Your task to perform on an android device: install app "VLC for Android" Image 0: 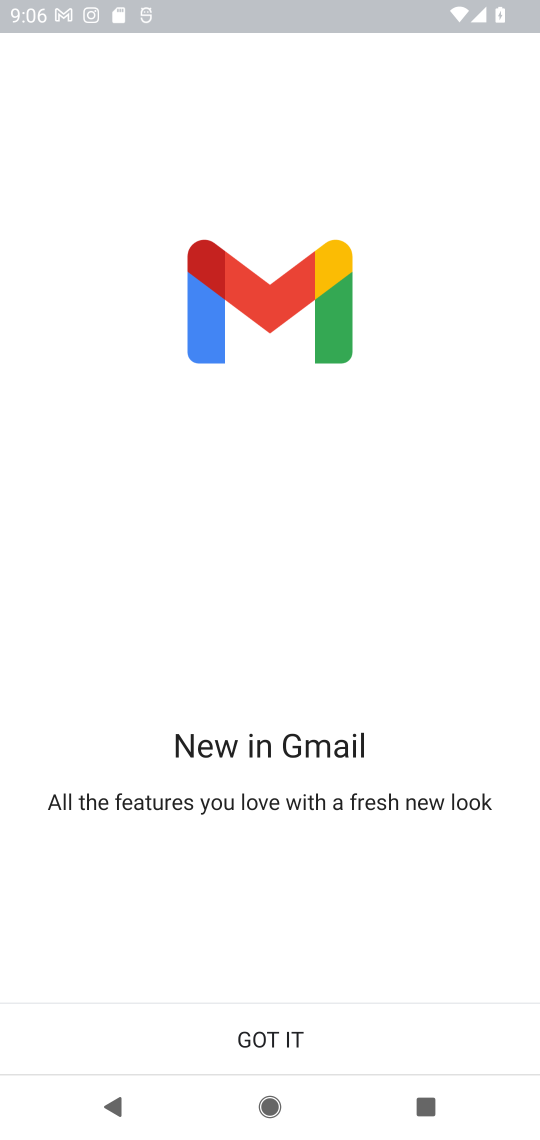
Step 0: press home button
Your task to perform on an android device: install app "VLC for Android" Image 1: 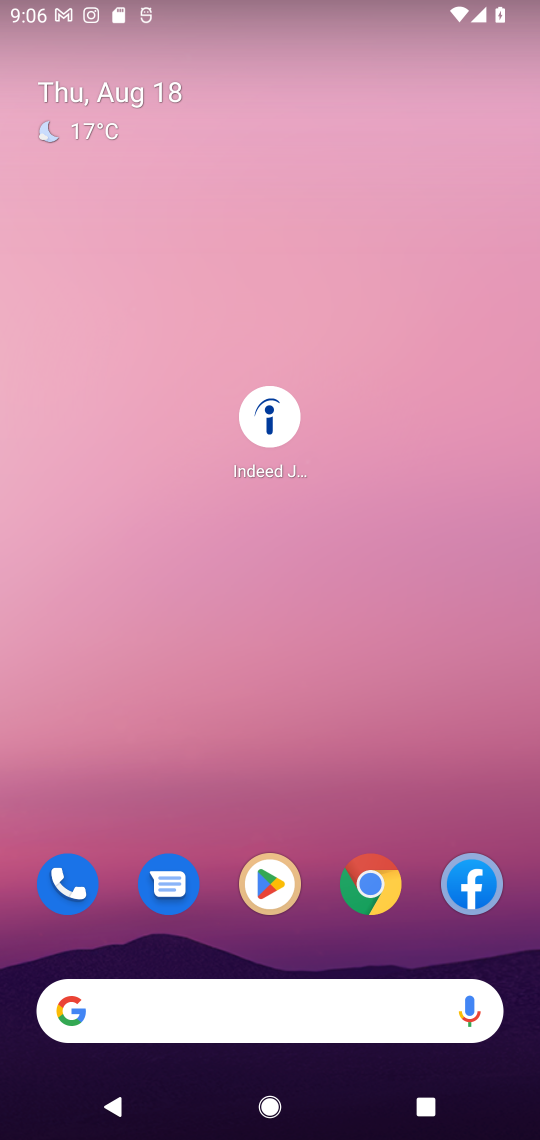
Step 1: drag from (206, 997) to (354, 110)
Your task to perform on an android device: install app "VLC for Android" Image 2: 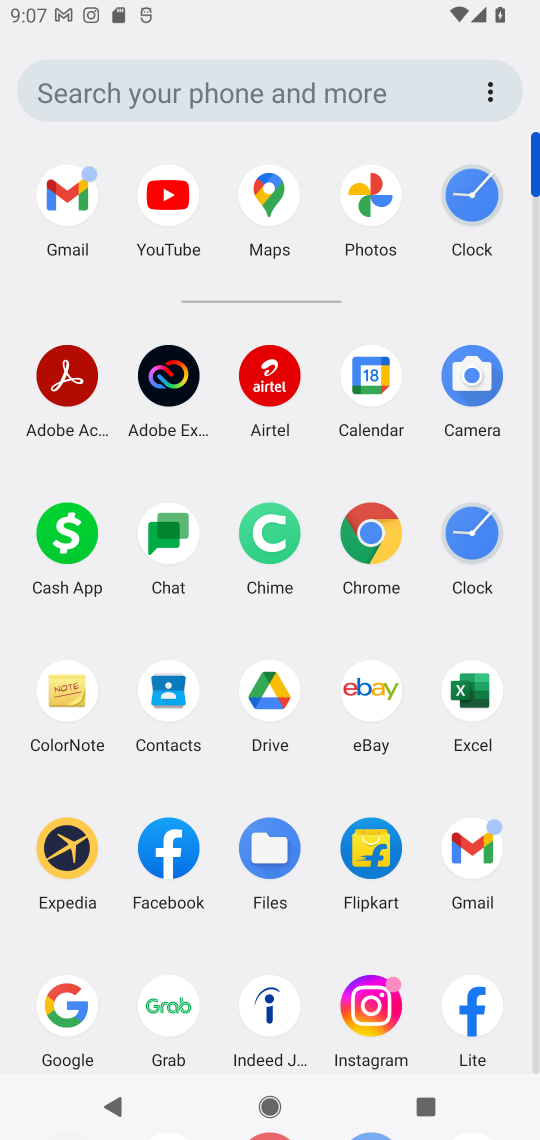
Step 2: drag from (223, 949) to (277, 287)
Your task to perform on an android device: install app "VLC for Android" Image 3: 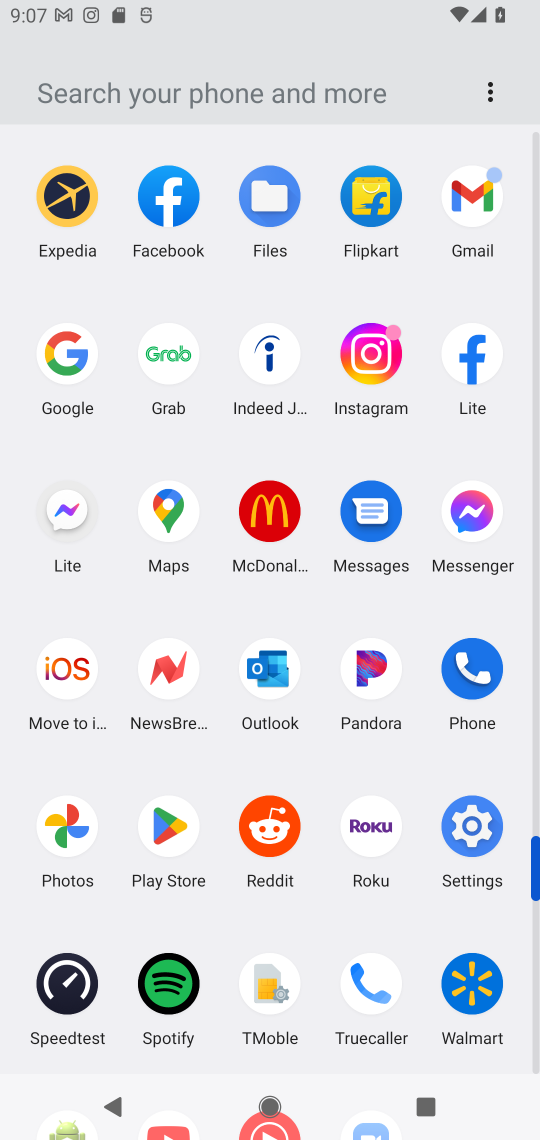
Step 3: click (171, 833)
Your task to perform on an android device: install app "VLC for Android" Image 4: 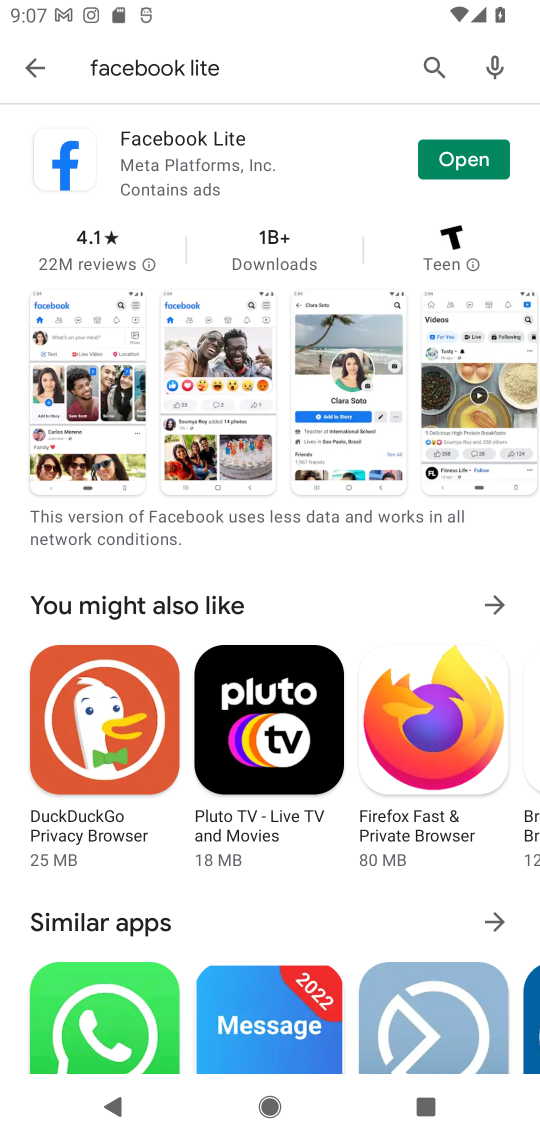
Step 4: press back button
Your task to perform on an android device: install app "VLC for Android" Image 5: 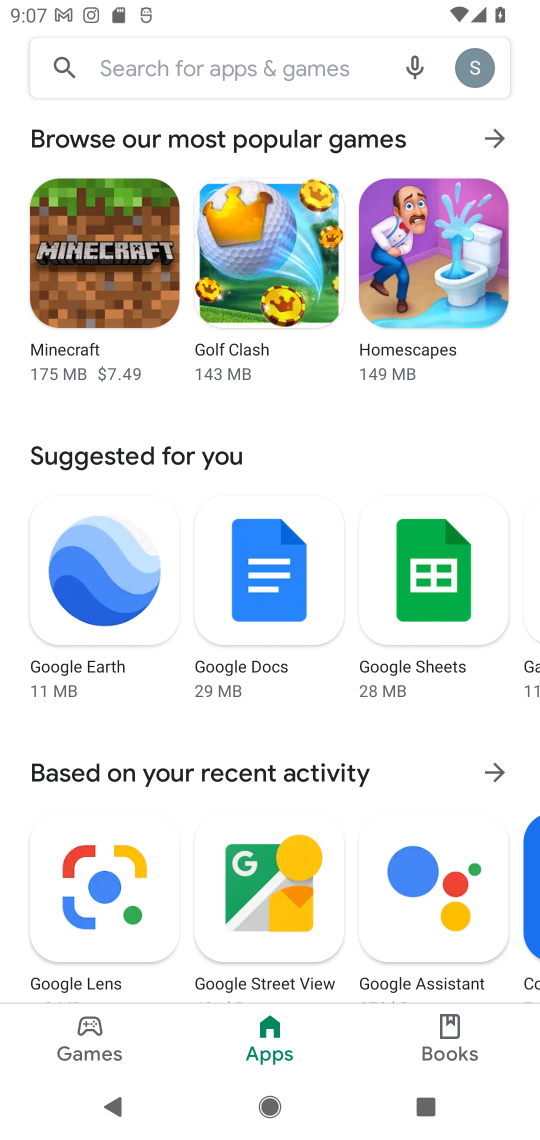
Step 5: click (263, 66)
Your task to perform on an android device: install app "VLC for Android" Image 6: 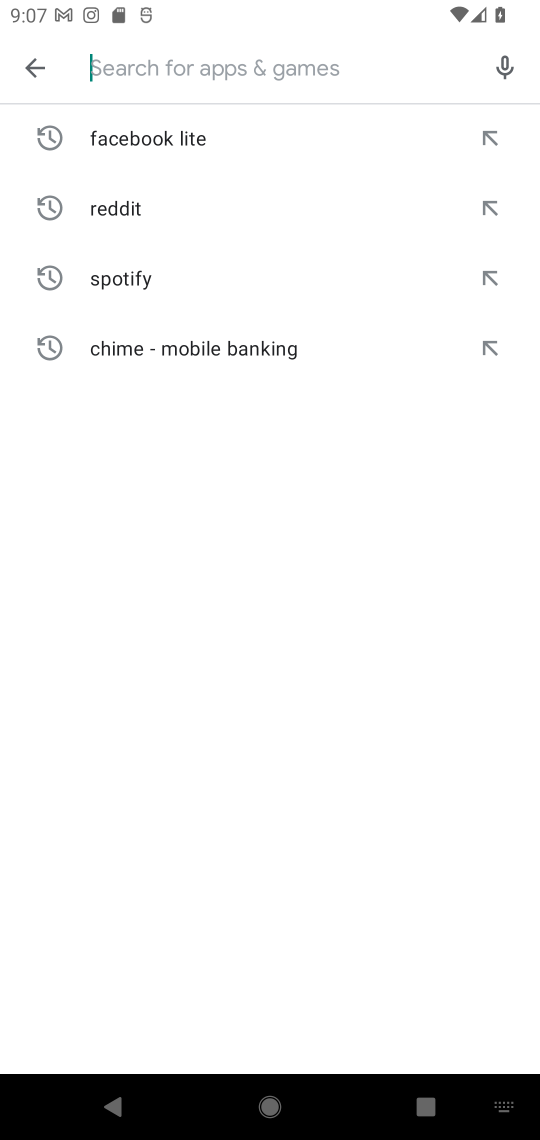
Step 6: type "VLC for Android"
Your task to perform on an android device: install app "VLC for Android" Image 7: 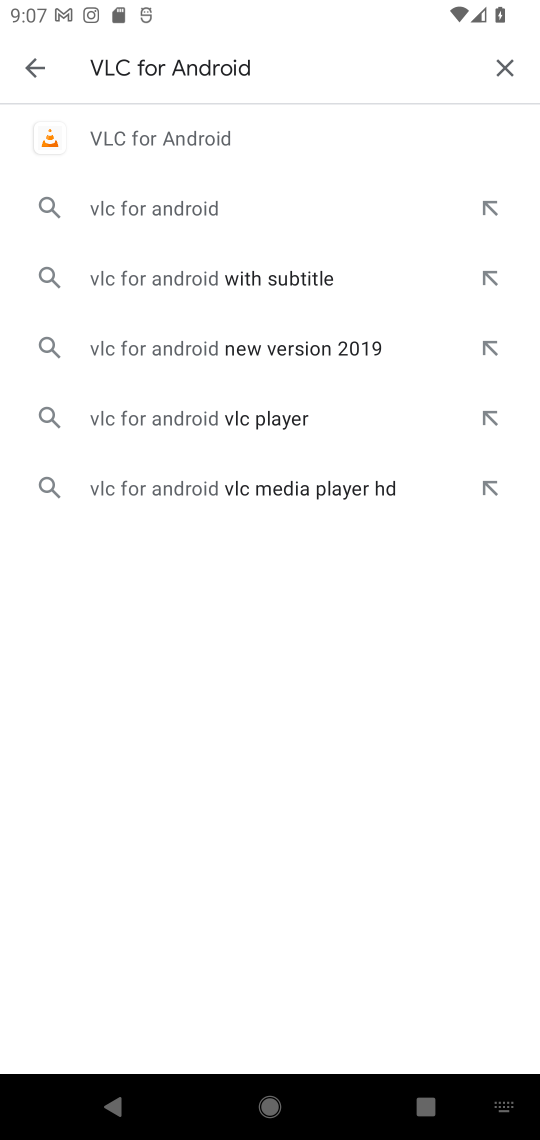
Step 7: click (211, 135)
Your task to perform on an android device: install app "VLC for Android" Image 8: 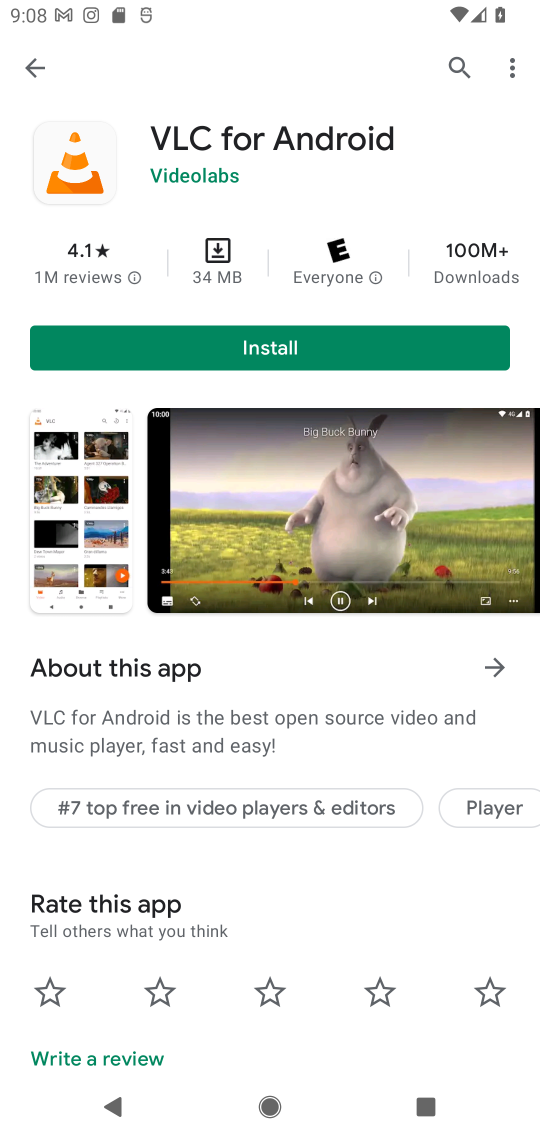
Step 8: click (218, 344)
Your task to perform on an android device: install app "VLC for Android" Image 9: 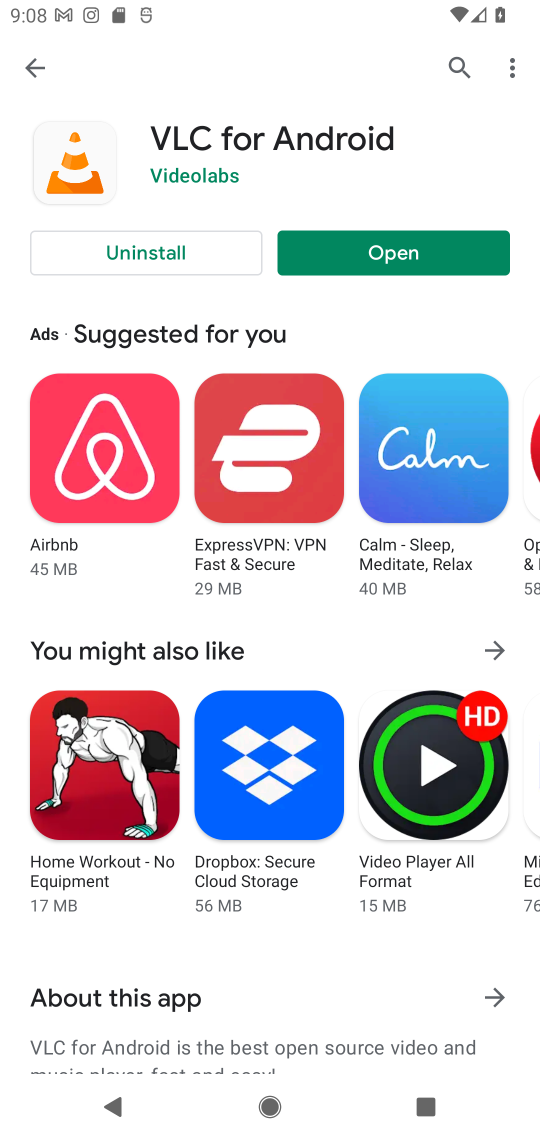
Step 9: task complete